Your task to perform on an android device: Show me productivity apps on the Play Store Image 0: 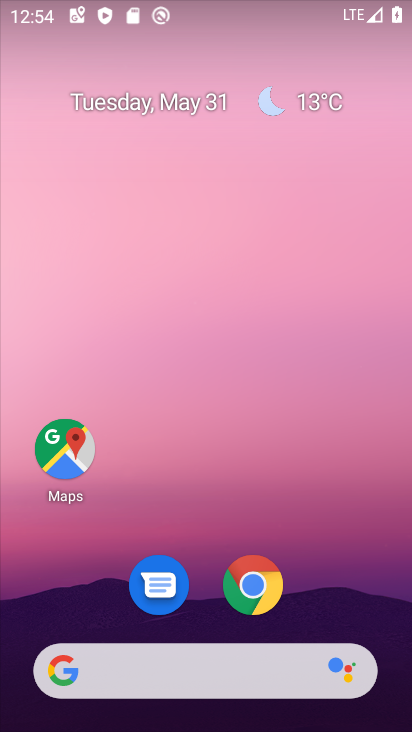
Step 0: drag from (243, 490) to (229, 9)
Your task to perform on an android device: Show me productivity apps on the Play Store Image 1: 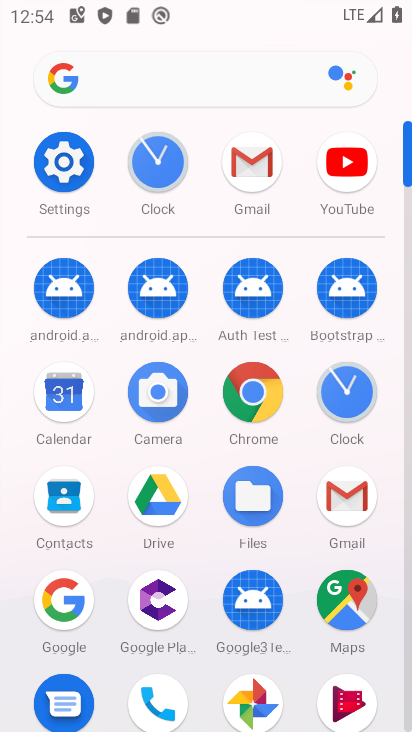
Step 1: drag from (207, 433) to (225, 170)
Your task to perform on an android device: Show me productivity apps on the Play Store Image 2: 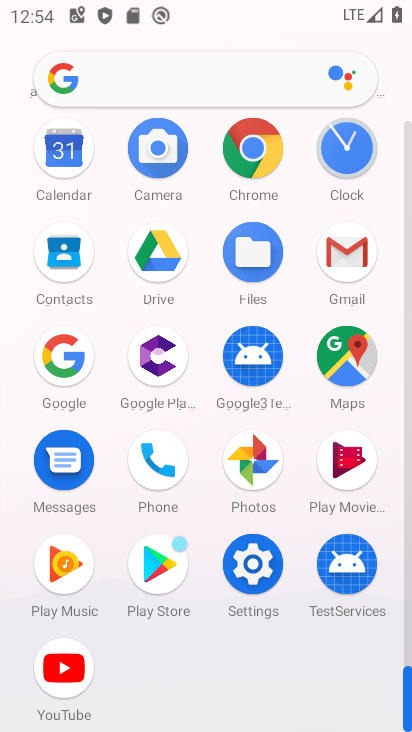
Step 2: click (156, 549)
Your task to perform on an android device: Show me productivity apps on the Play Store Image 3: 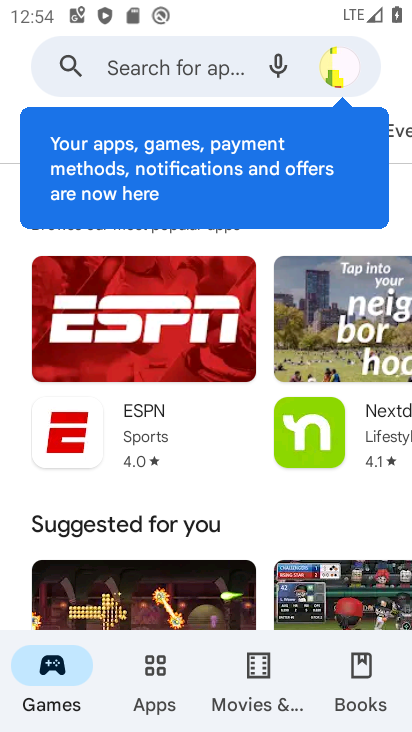
Step 3: click (154, 652)
Your task to perform on an android device: Show me productivity apps on the Play Store Image 4: 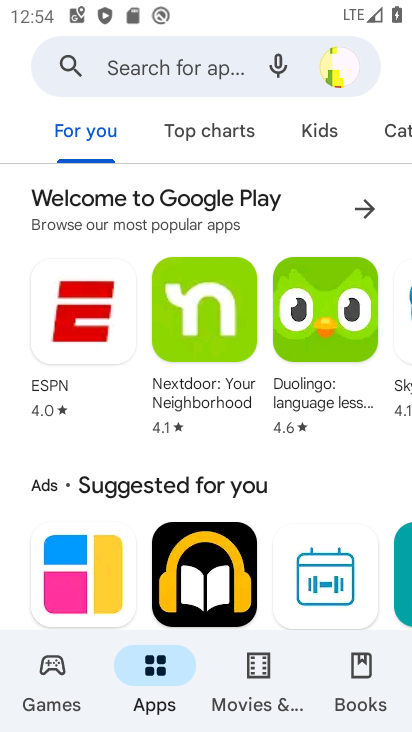
Step 4: click (394, 125)
Your task to perform on an android device: Show me productivity apps on the Play Store Image 5: 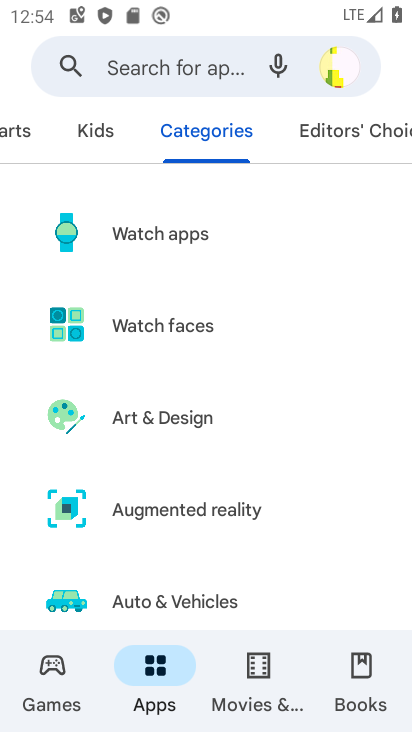
Step 5: drag from (249, 446) to (272, 1)
Your task to perform on an android device: Show me productivity apps on the Play Store Image 6: 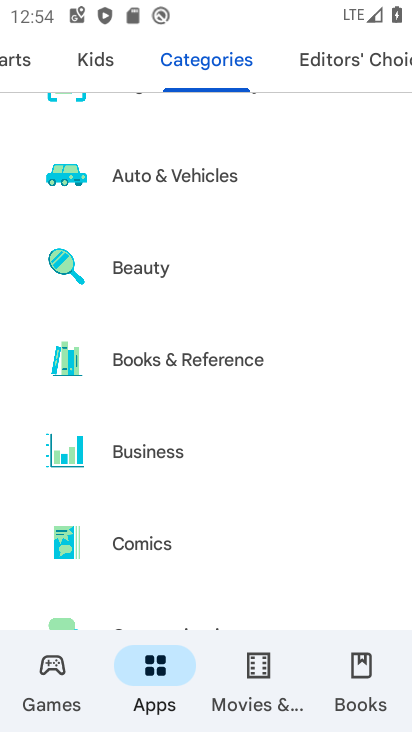
Step 6: drag from (211, 496) to (244, 0)
Your task to perform on an android device: Show me productivity apps on the Play Store Image 7: 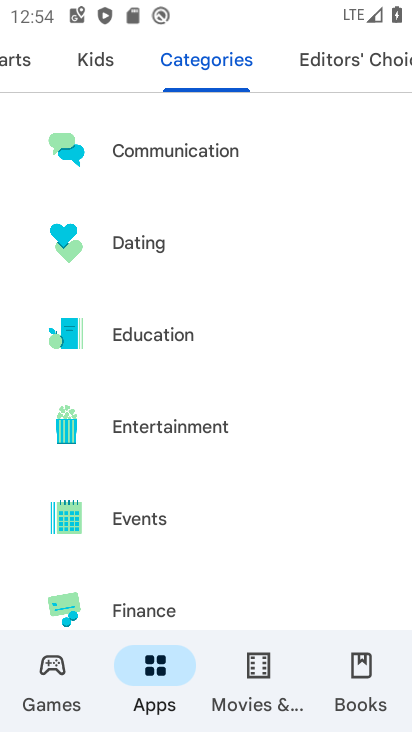
Step 7: drag from (227, 535) to (251, 167)
Your task to perform on an android device: Show me productivity apps on the Play Store Image 8: 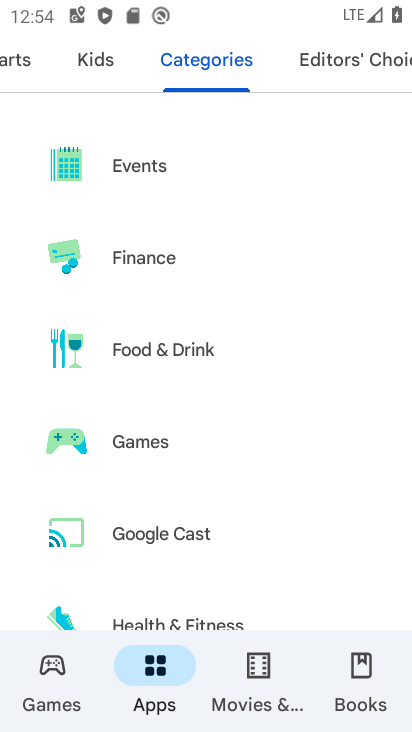
Step 8: drag from (224, 559) to (222, 226)
Your task to perform on an android device: Show me productivity apps on the Play Store Image 9: 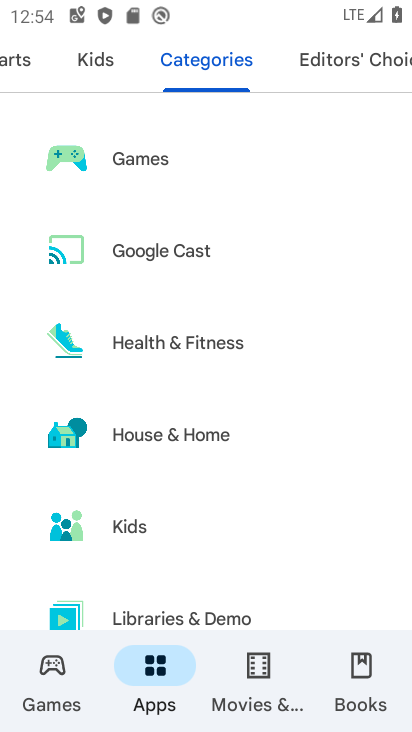
Step 9: drag from (233, 604) to (241, 348)
Your task to perform on an android device: Show me productivity apps on the Play Store Image 10: 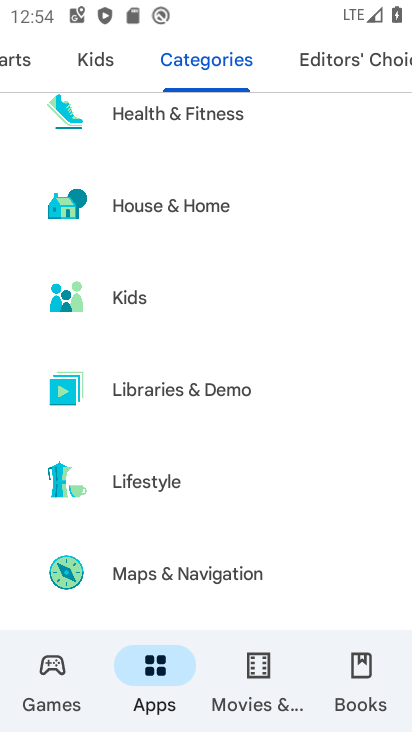
Step 10: drag from (263, 551) to (307, 87)
Your task to perform on an android device: Show me productivity apps on the Play Store Image 11: 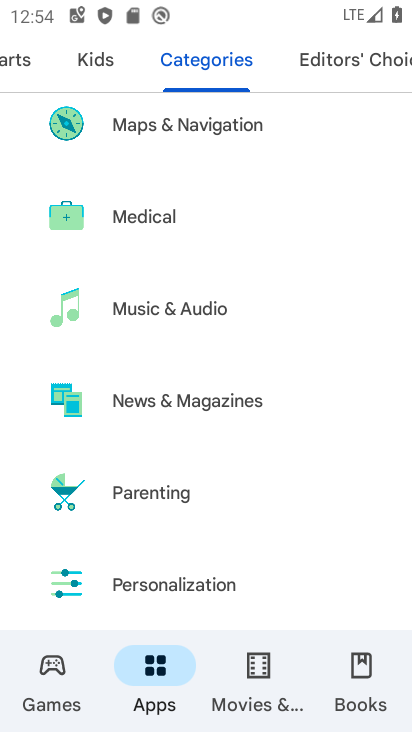
Step 11: drag from (296, 521) to (295, 128)
Your task to perform on an android device: Show me productivity apps on the Play Store Image 12: 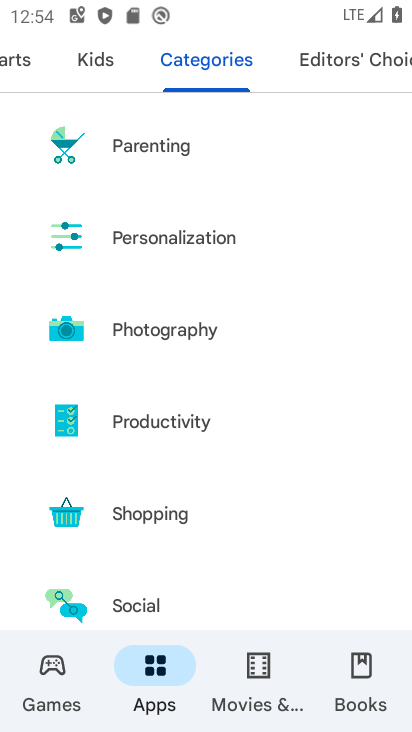
Step 12: click (214, 413)
Your task to perform on an android device: Show me productivity apps on the Play Store Image 13: 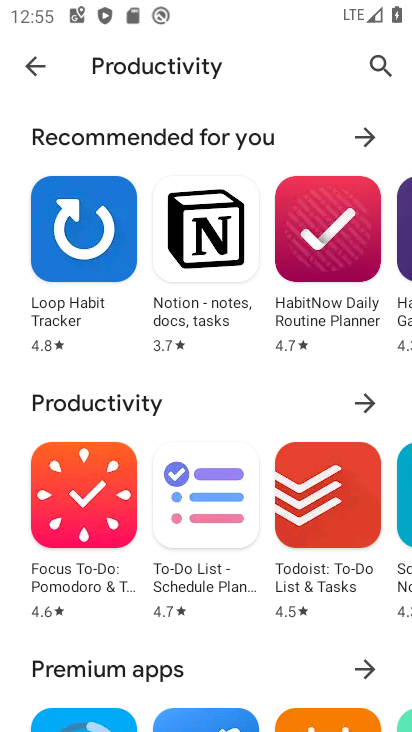
Step 13: click (361, 396)
Your task to perform on an android device: Show me productivity apps on the Play Store Image 14: 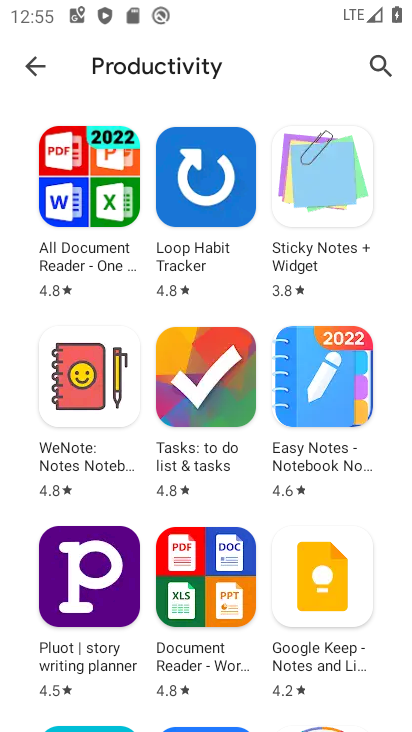
Step 14: task complete